Your task to perform on an android device: See recent photos Image 0: 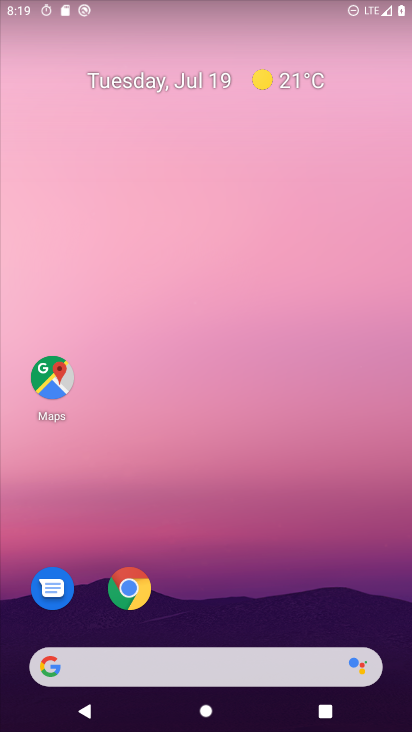
Step 0: drag from (249, 583) to (269, 210)
Your task to perform on an android device: See recent photos Image 1: 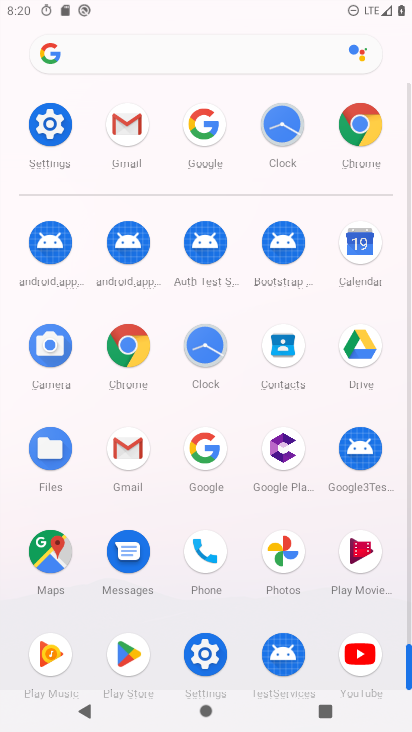
Step 1: click (282, 553)
Your task to perform on an android device: See recent photos Image 2: 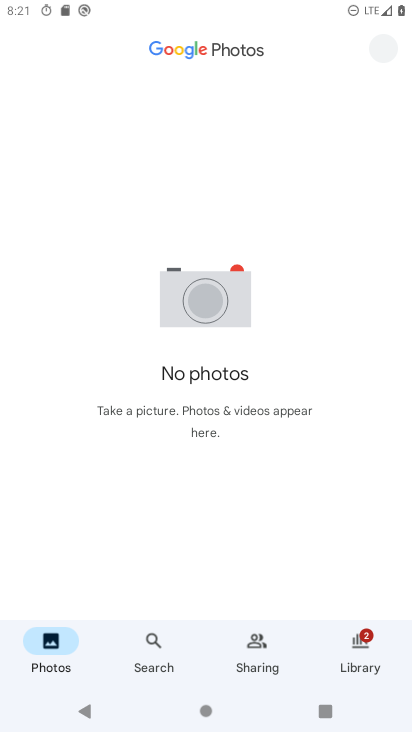
Step 2: task complete